Your task to perform on an android device: Do I have any events this weekend? Image 0: 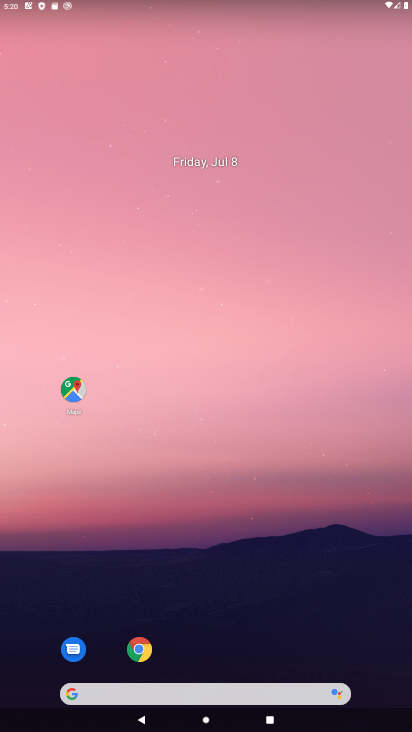
Step 0: drag from (334, 612) to (349, 84)
Your task to perform on an android device: Do I have any events this weekend? Image 1: 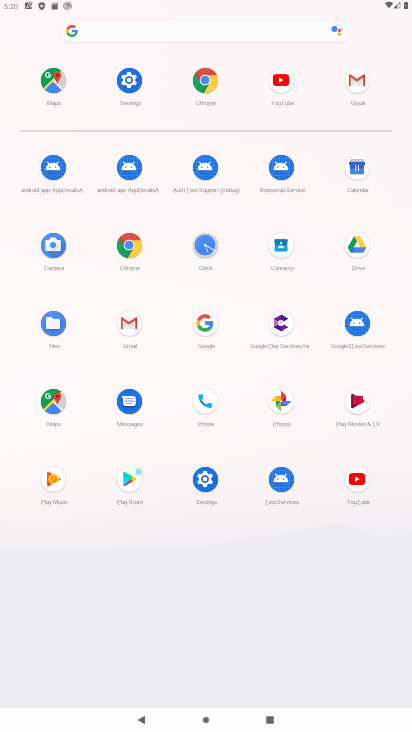
Step 1: click (364, 167)
Your task to perform on an android device: Do I have any events this weekend? Image 2: 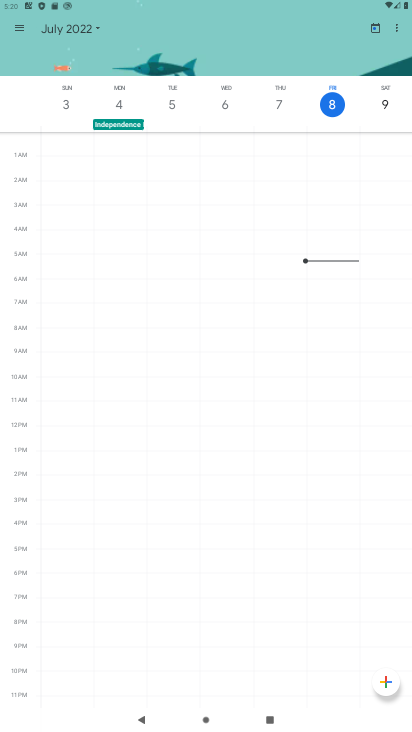
Step 2: task complete